Your task to perform on an android device: star an email in the gmail app Image 0: 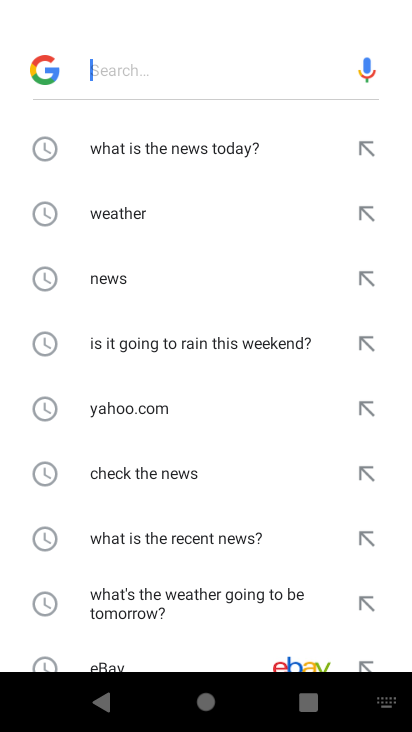
Step 0: press home button
Your task to perform on an android device: star an email in the gmail app Image 1: 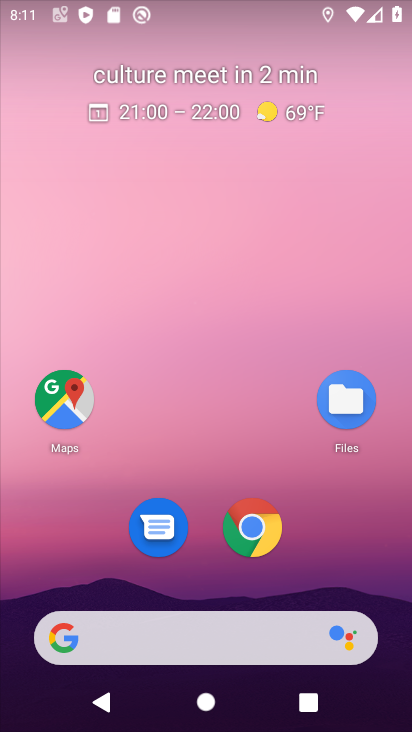
Step 1: drag from (210, 590) to (256, 124)
Your task to perform on an android device: star an email in the gmail app Image 2: 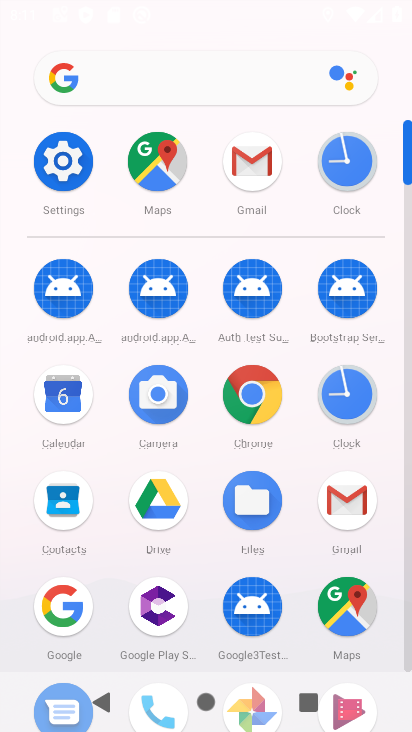
Step 2: click (249, 165)
Your task to perform on an android device: star an email in the gmail app Image 3: 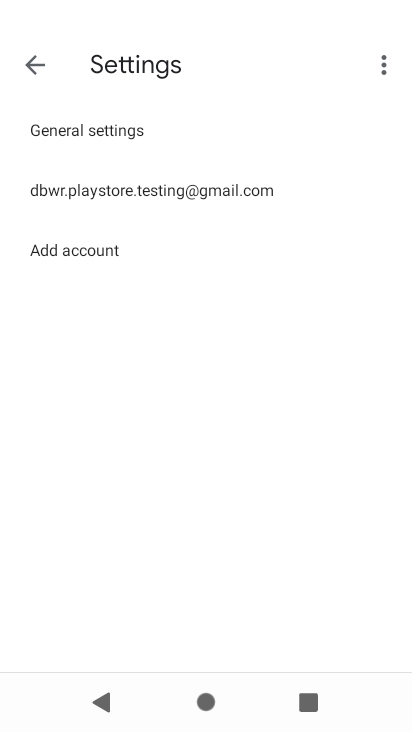
Step 3: click (98, 137)
Your task to perform on an android device: star an email in the gmail app Image 4: 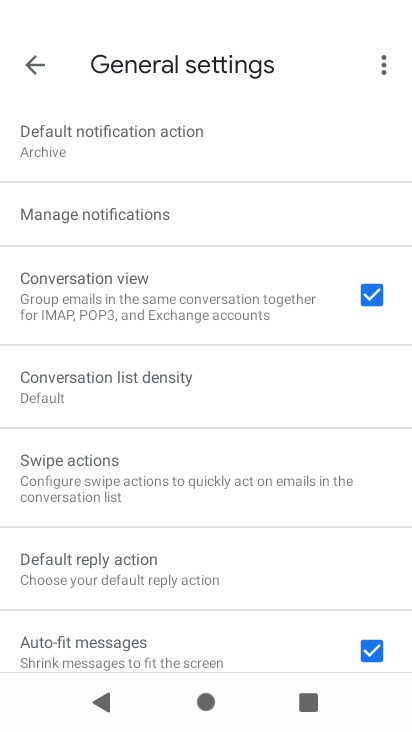
Step 4: press back button
Your task to perform on an android device: star an email in the gmail app Image 5: 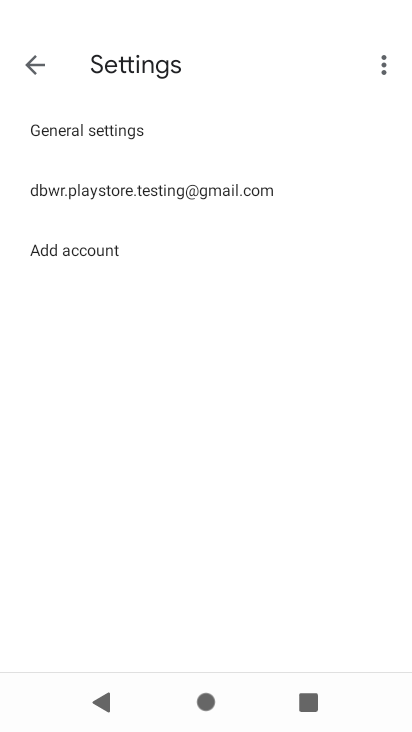
Step 5: press back button
Your task to perform on an android device: star an email in the gmail app Image 6: 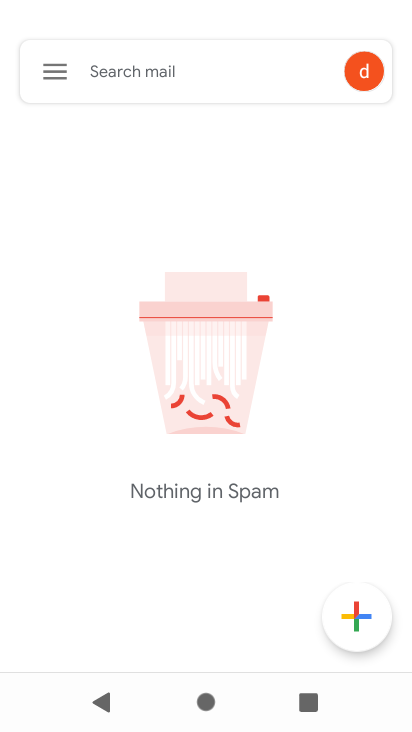
Step 6: click (61, 67)
Your task to perform on an android device: star an email in the gmail app Image 7: 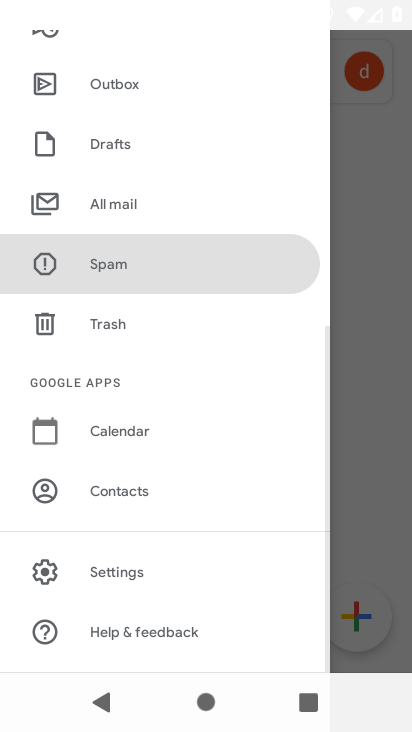
Step 7: click (102, 206)
Your task to perform on an android device: star an email in the gmail app Image 8: 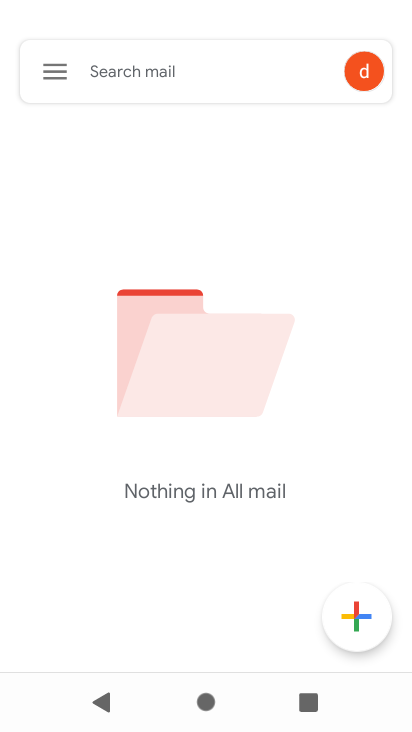
Step 8: task complete